Your task to perform on an android device: check android version Image 0: 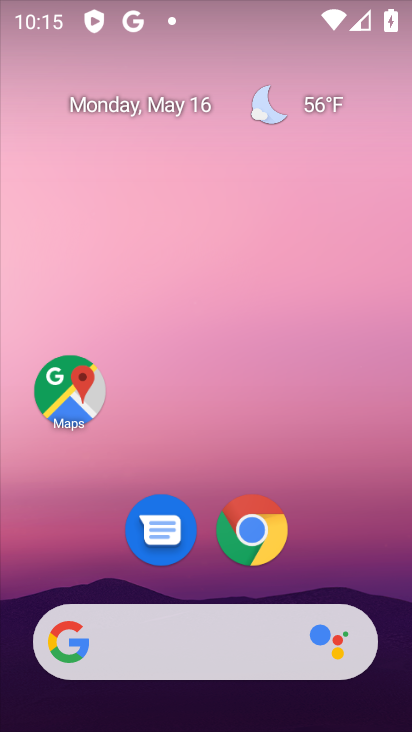
Step 0: drag from (375, 562) to (361, 88)
Your task to perform on an android device: check android version Image 1: 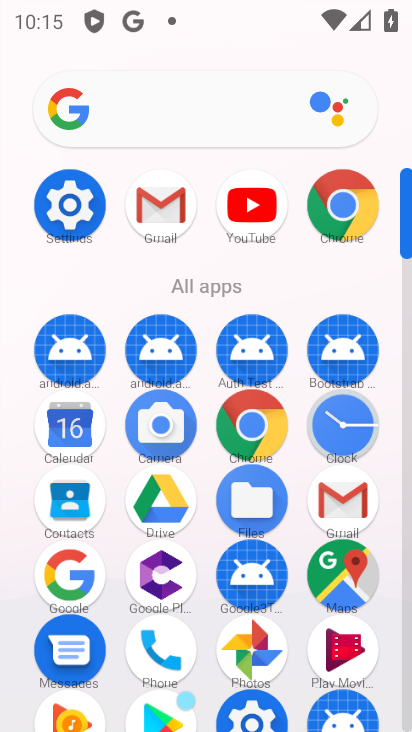
Step 1: click (62, 221)
Your task to perform on an android device: check android version Image 2: 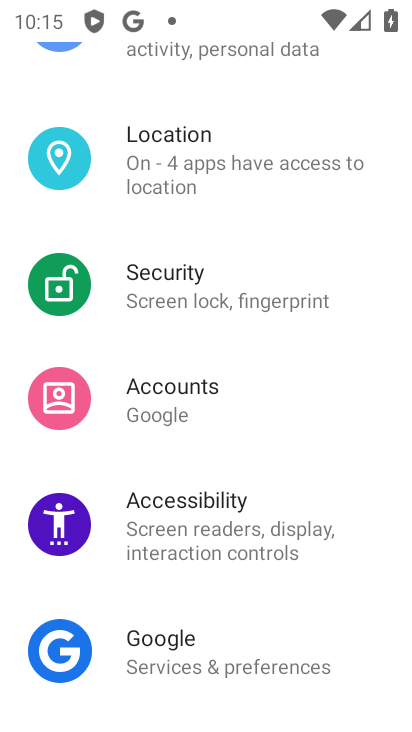
Step 2: drag from (352, 335) to (348, 446)
Your task to perform on an android device: check android version Image 3: 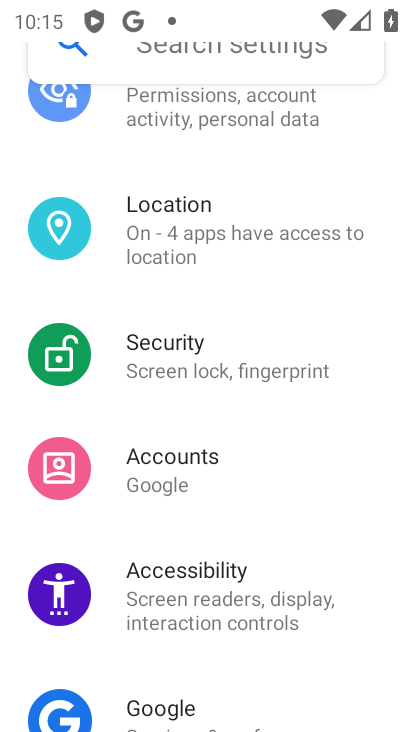
Step 3: drag from (376, 191) to (355, 395)
Your task to perform on an android device: check android version Image 4: 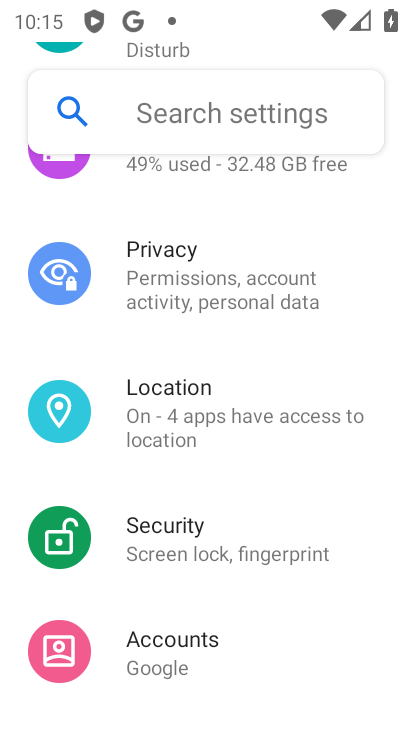
Step 4: drag from (372, 196) to (380, 376)
Your task to perform on an android device: check android version Image 5: 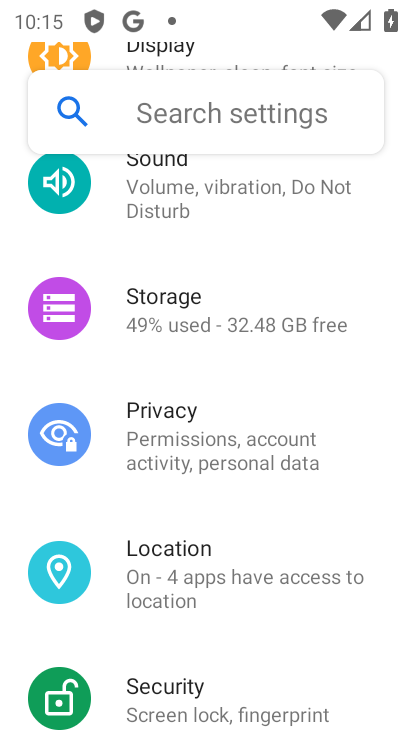
Step 5: drag from (370, 195) to (377, 354)
Your task to perform on an android device: check android version Image 6: 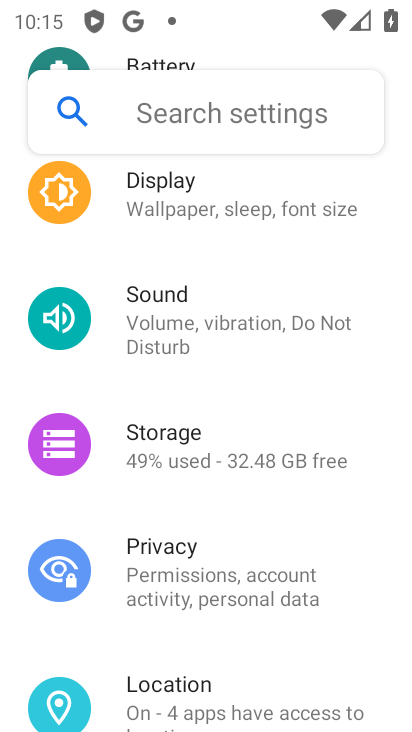
Step 6: drag from (367, 176) to (361, 320)
Your task to perform on an android device: check android version Image 7: 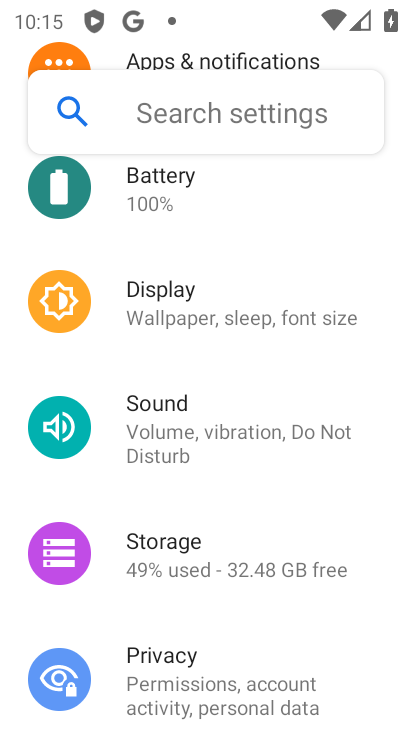
Step 7: drag from (368, 199) to (366, 364)
Your task to perform on an android device: check android version Image 8: 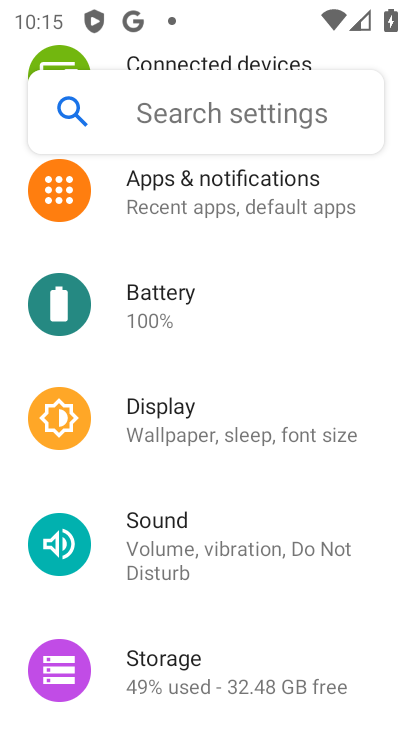
Step 8: drag from (373, 189) to (354, 337)
Your task to perform on an android device: check android version Image 9: 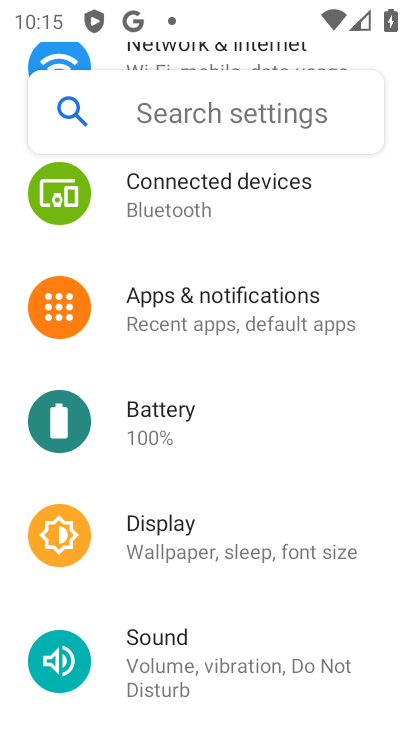
Step 9: drag from (362, 188) to (344, 399)
Your task to perform on an android device: check android version Image 10: 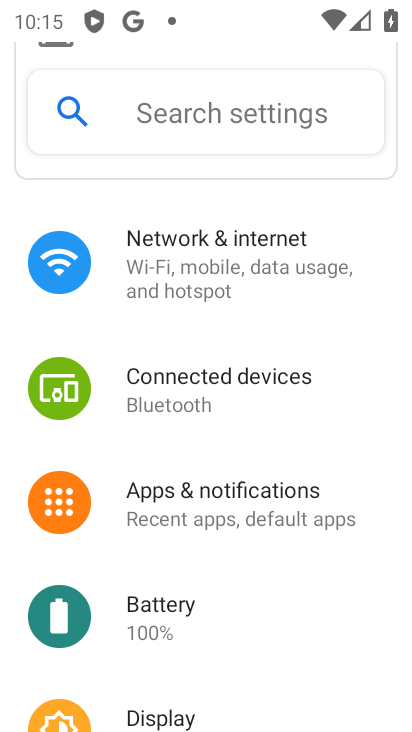
Step 10: drag from (314, 608) to (330, 404)
Your task to perform on an android device: check android version Image 11: 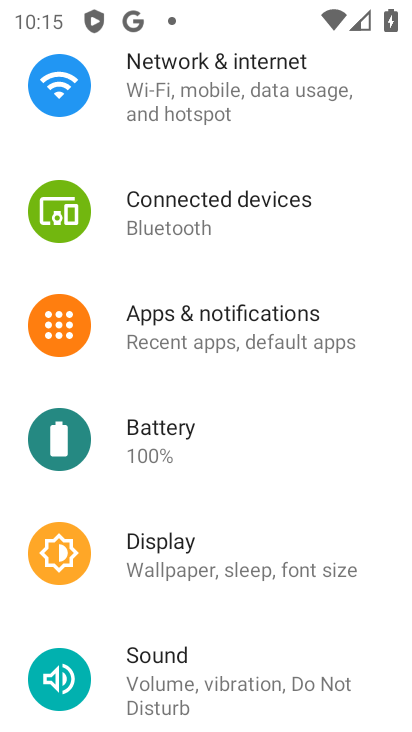
Step 11: drag from (331, 620) to (340, 419)
Your task to perform on an android device: check android version Image 12: 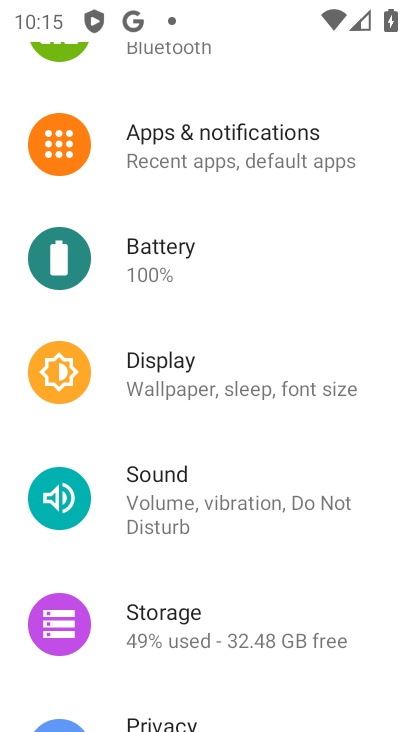
Step 12: drag from (333, 574) to (353, 349)
Your task to perform on an android device: check android version Image 13: 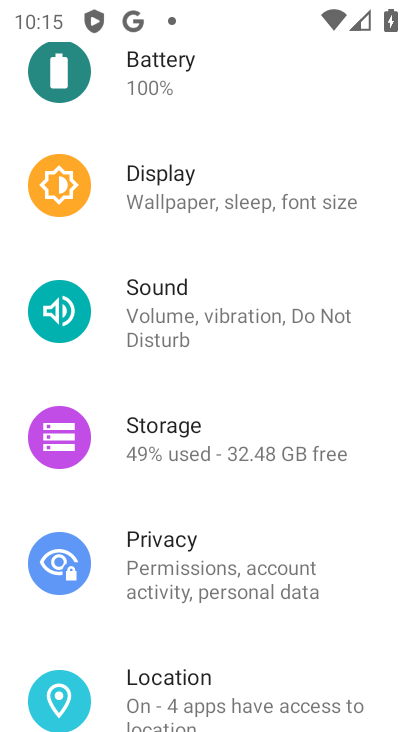
Step 13: drag from (339, 635) to (345, 405)
Your task to perform on an android device: check android version Image 14: 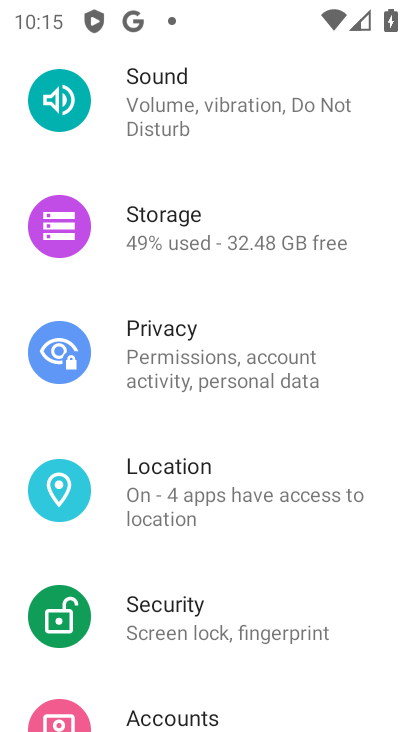
Step 14: drag from (328, 660) to (315, 404)
Your task to perform on an android device: check android version Image 15: 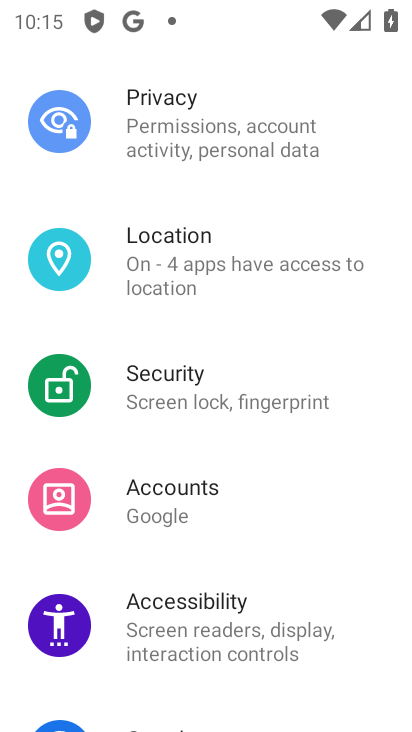
Step 15: drag from (312, 671) to (321, 490)
Your task to perform on an android device: check android version Image 16: 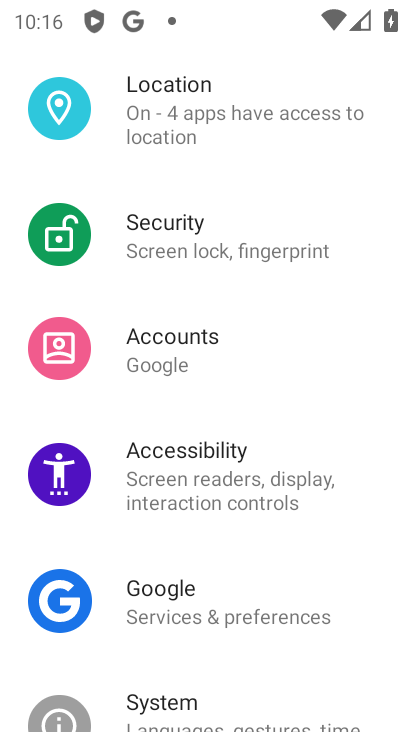
Step 16: drag from (324, 668) to (340, 479)
Your task to perform on an android device: check android version Image 17: 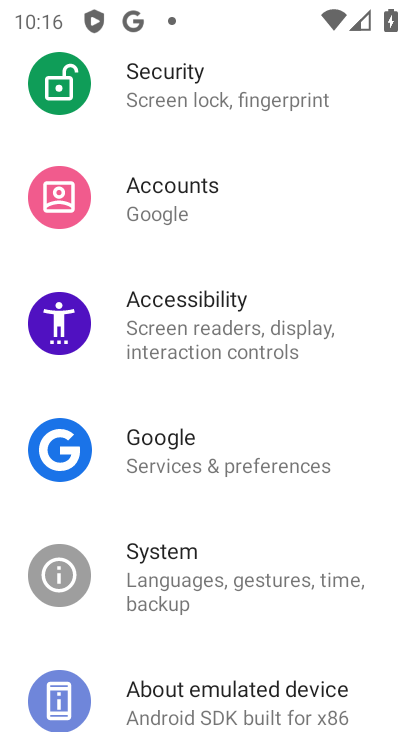
Step 17: drag from (340, 624) to (360, 479)
Your task to perform on an android device: check android version Image 18: 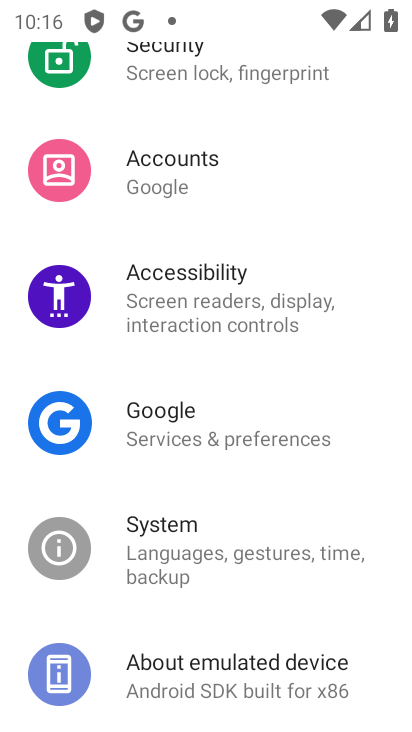
Step 18: click (286, 552)
Your task to perform on an android device: check android version Image 19: 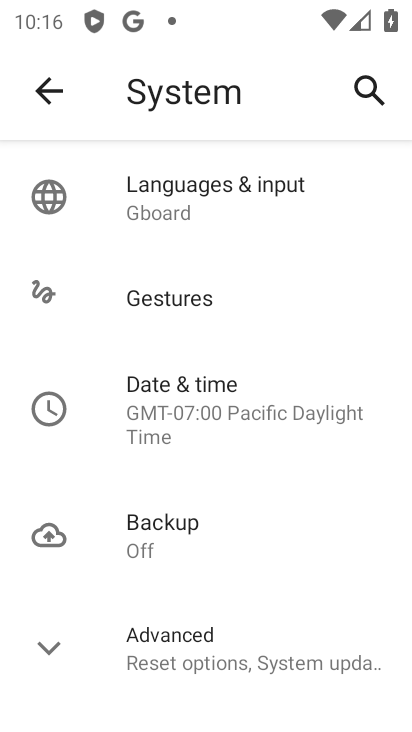
Step 19: click (243, 671)
Your task to perform on an android device: check android version Image 20: 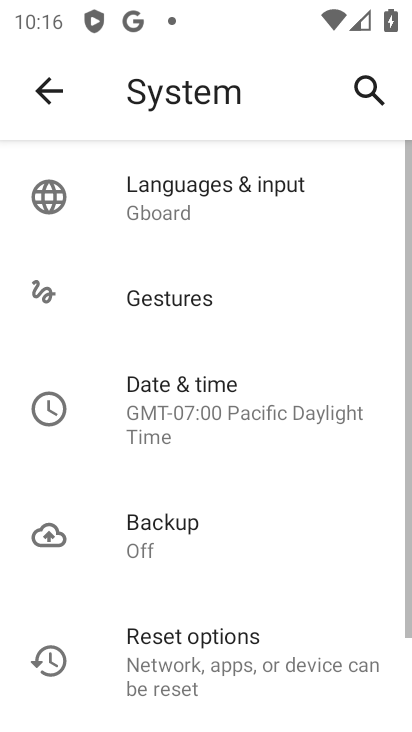
Step 20: drag from (290, 653) to (306, 460)
Your task to perform on an android device: check android version Image 21: 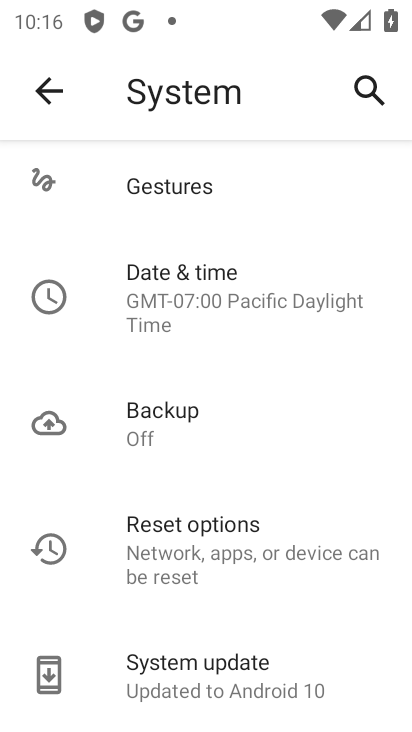
Step 21: click (247, 693)
Your task to perform on an android device: check android version Image 22: 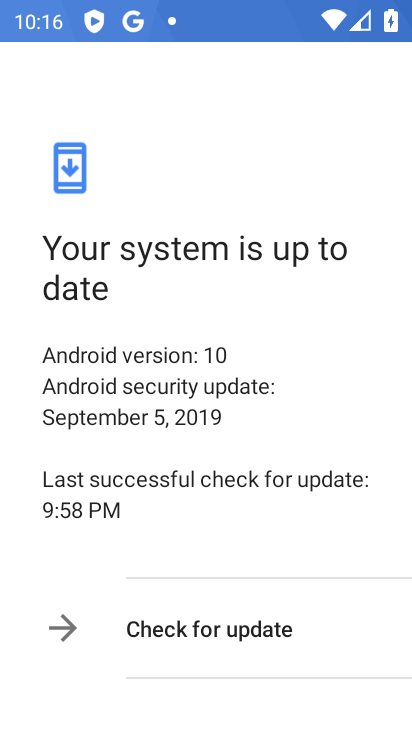
Step 22: task complete